Your task to perform on an android device: Do I have any events tomorrow? Image 0: 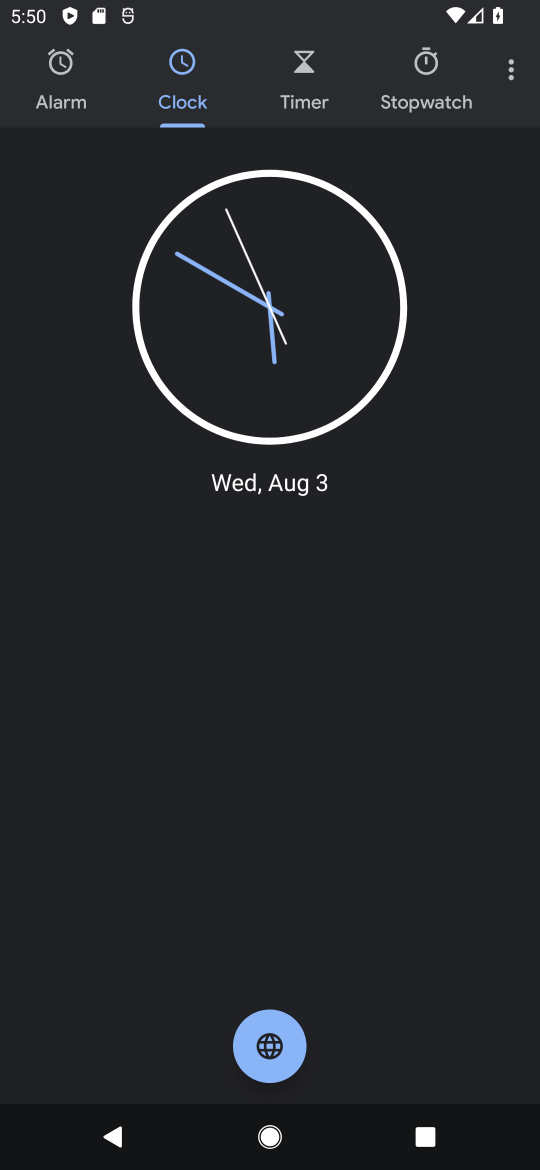
Step 0: press home button
Your task to perform on an android device: Do I have any events tomorrow? Image 1: 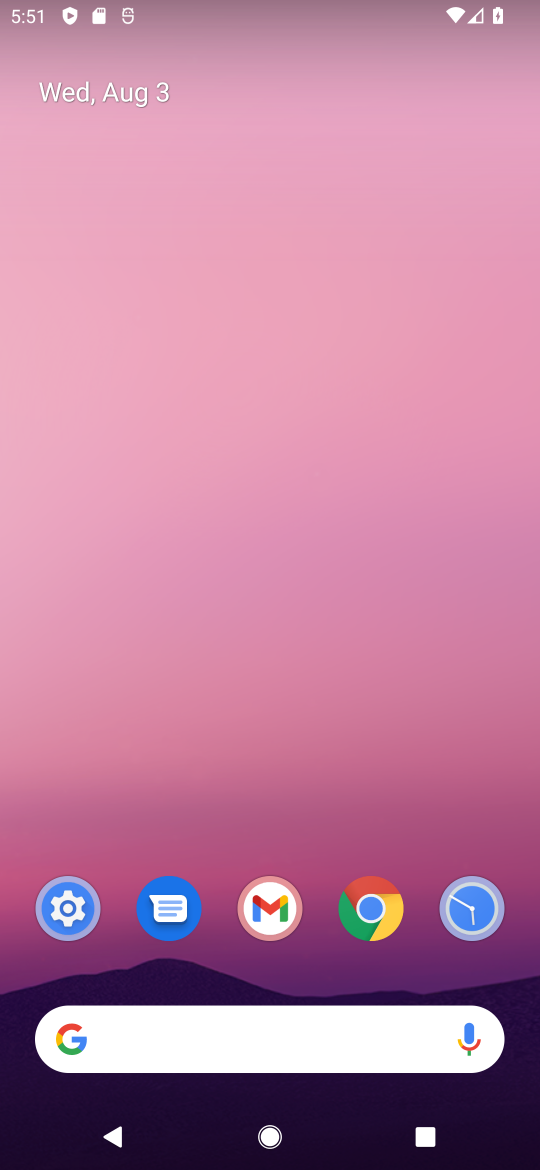
Step 1: drag from (282, 967) to (214, 124)
Your task to perform on an android device: Do I have any events tomorrow? Image 2: 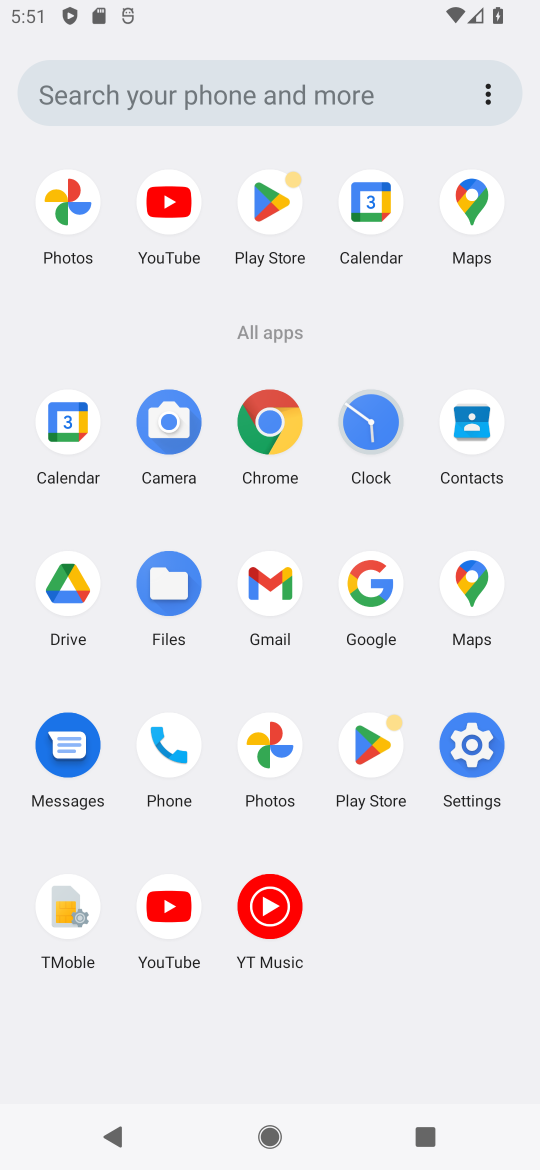
Step 2: click (92, 459)
Your task to perform on an android device: Do I have any events tomorrow? Image 3: 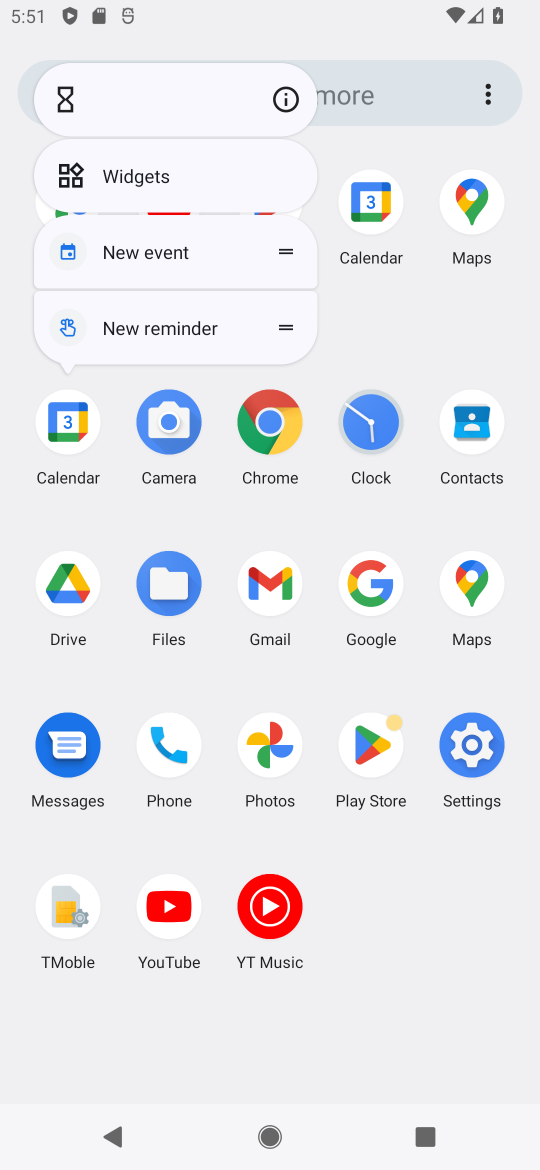
Step 3: click (80, 482)
Your task to perform on an android device: Do I have any events tomorrow? Image 4: 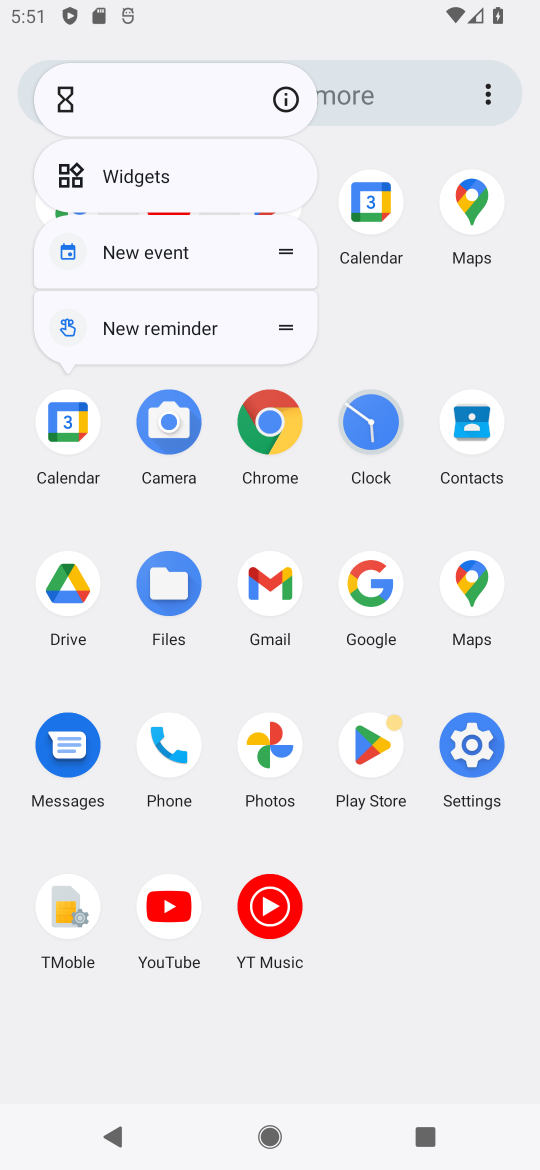
Step 4: click (72, 472)
Your task to perform on an android device: Do I have any events tomorrow? Image 5: 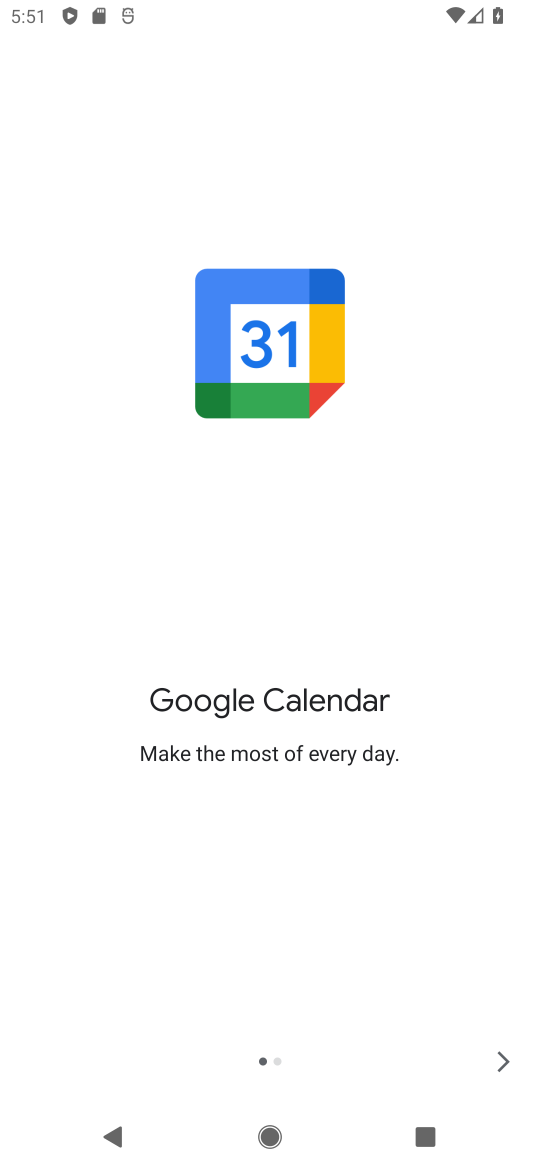
Step 5: click (503, 1077)
Your task to perform on an android device: Do I have any events tomorrow? Image 6: 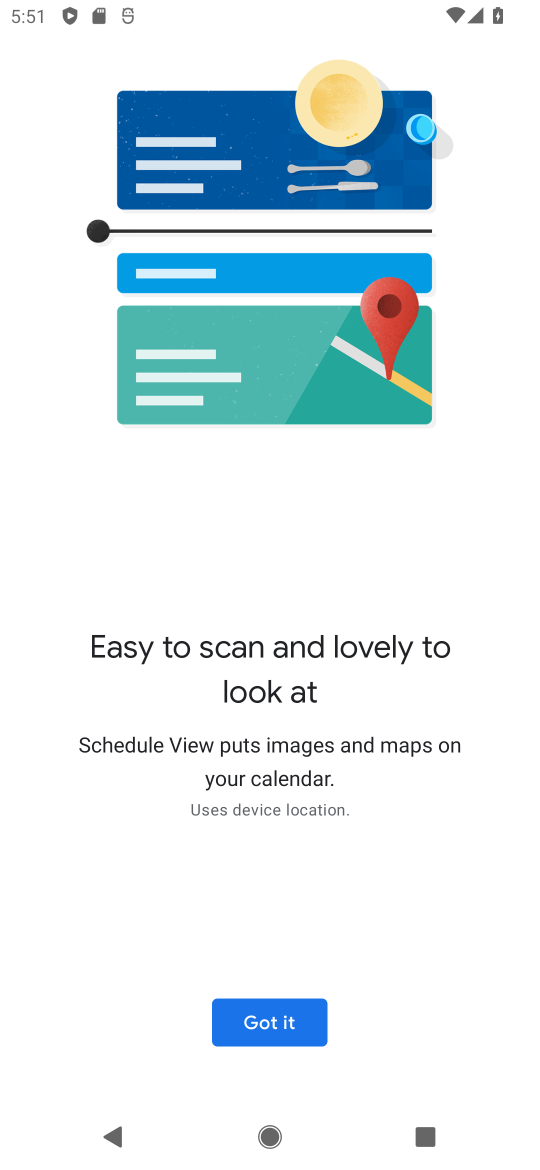
Step 6: click (290, 1029)
Your task to perform on an android device: Do I have any events tomorrow? Image 7: 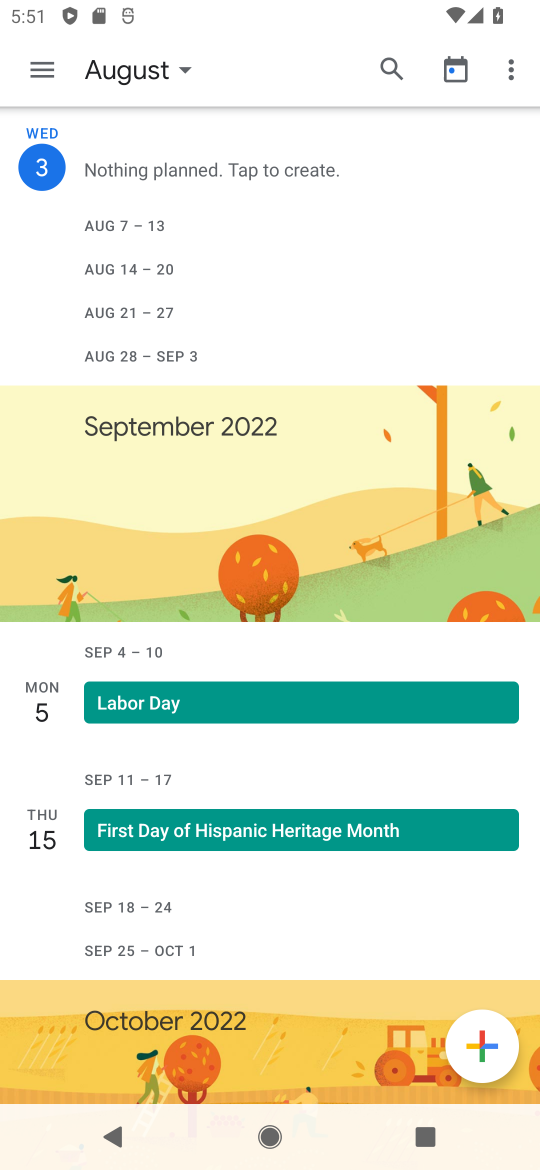
Step 7: click (52, 76)
Your task to perform on an android device: Do I have any events tomorrow? Image 8: 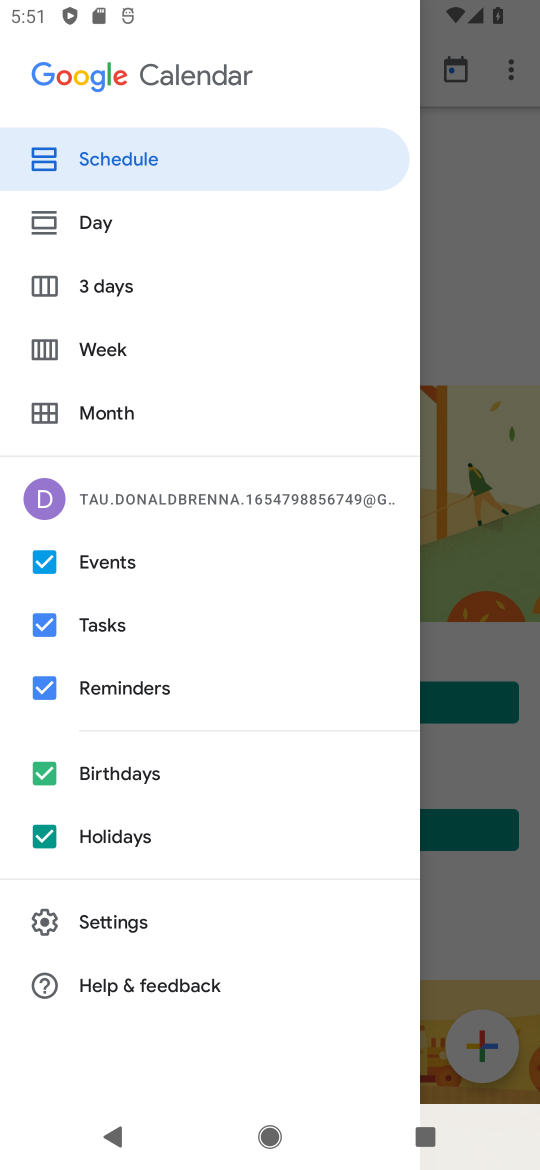
Step 8: click (103, 611)
Your task to perform on an android device: Do I have any events tomorrow? Image 9: 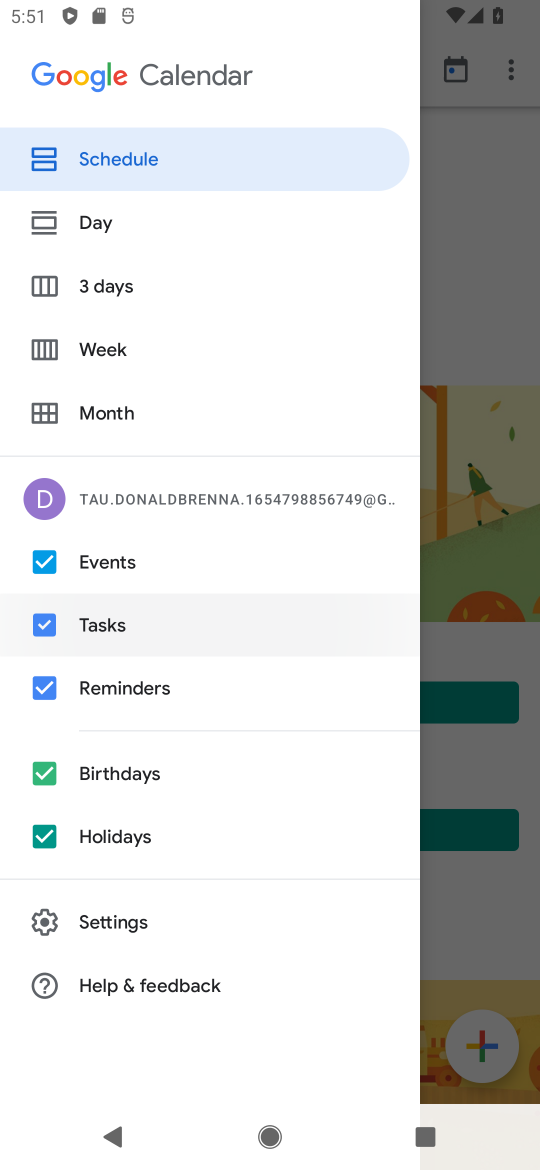
Step 9: click (102, 690)
Your task to perform on an android device: Do I have any events tomorrow? Image 10: 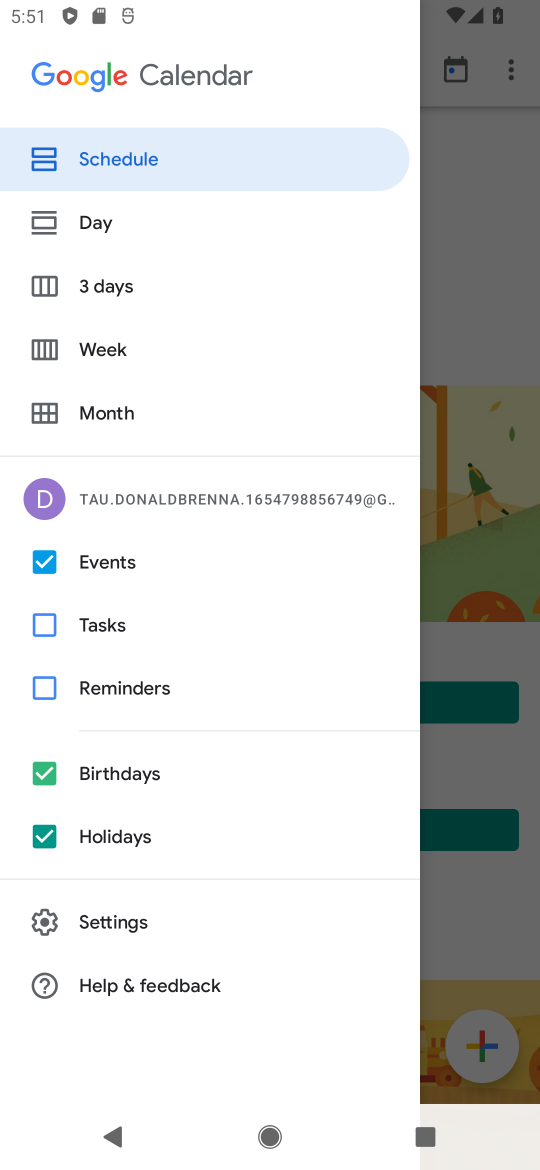
Step 10: click (136, 286)
Your task to perform on an android device: Do I have any events tomorrow? Image 11: 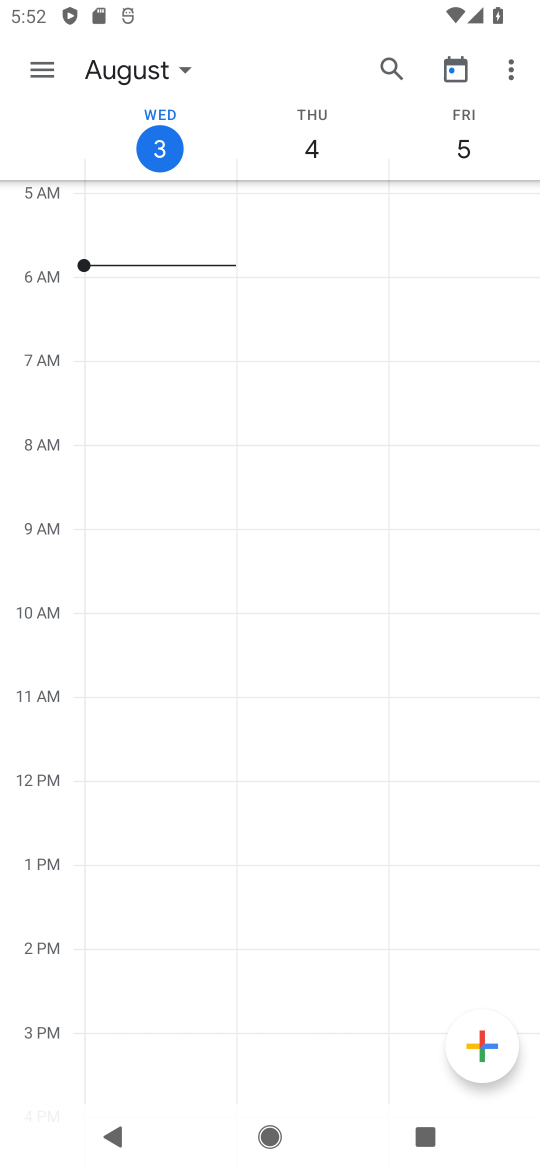
Step 11: task complete